Your task to perform on an android device: add a label to a message in the gmail app Image 0: 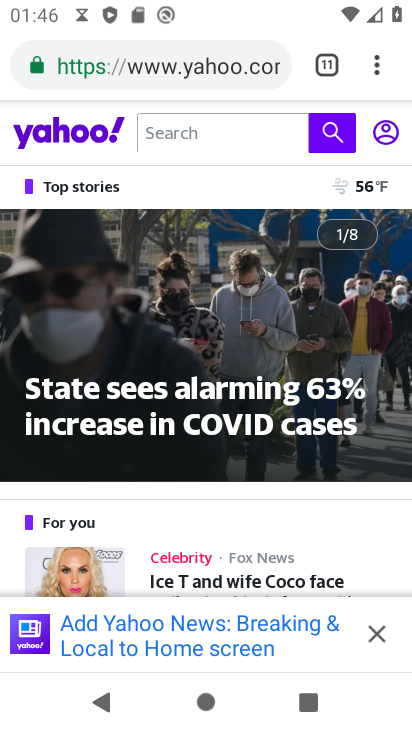
Step 0: press home button
Your task to perform on an android device: add a label to a message in the gmail app Image 1: 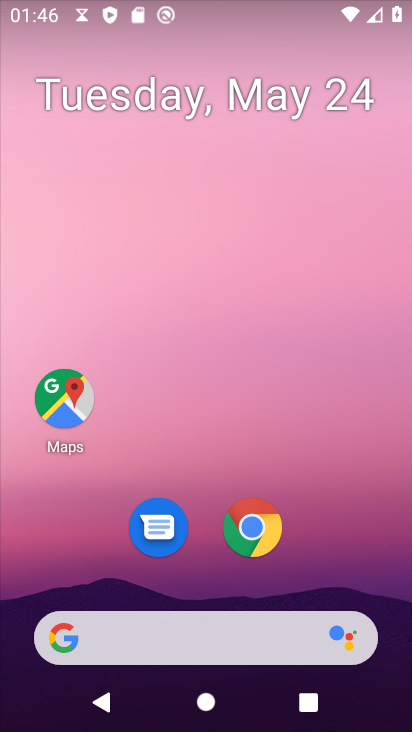
Step 1: drag from (143, 641) to (299, 84)
Your task to perform on an android device: add a label to a message in the gmail app Image 2: 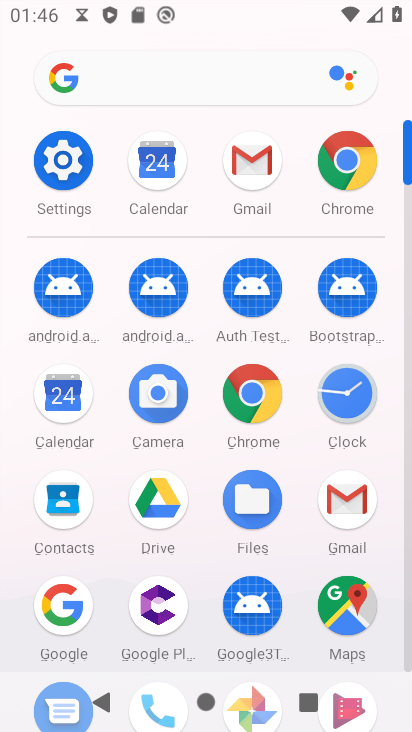
Step 2: click (247, 164)
Your task to perform on an android device: add a label to a message in the gmail app Image 3: 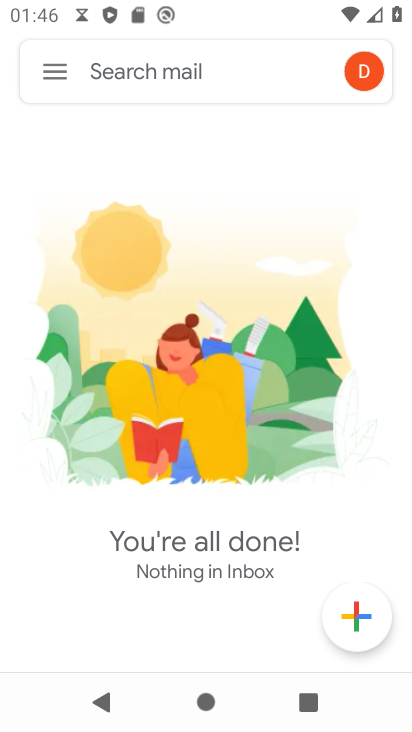
Step 3: task complete